Your task to perform on an android device: snooze an email in the gmail app Image 0: 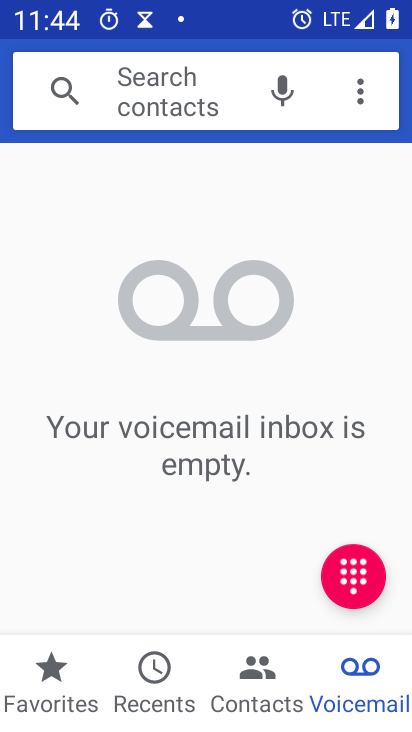
Step 0: press home button
Your task to perform on an android device: snooze an email in the gmail app Image 1: 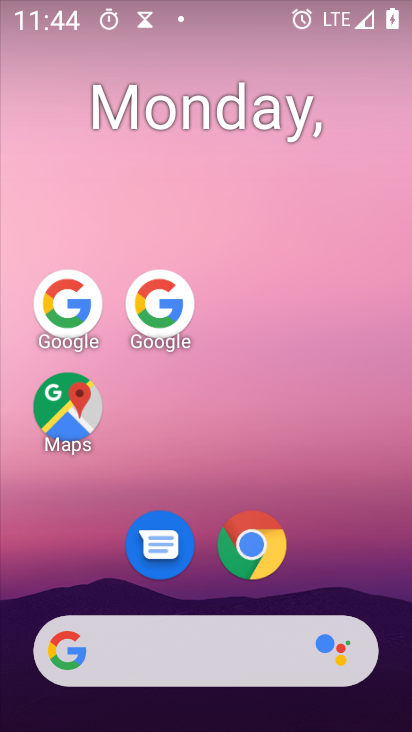
Step 1: drag from (171, 678) to (295, 131)
Your task to perform on an android device: snooze an email in the gmail app Image 2: 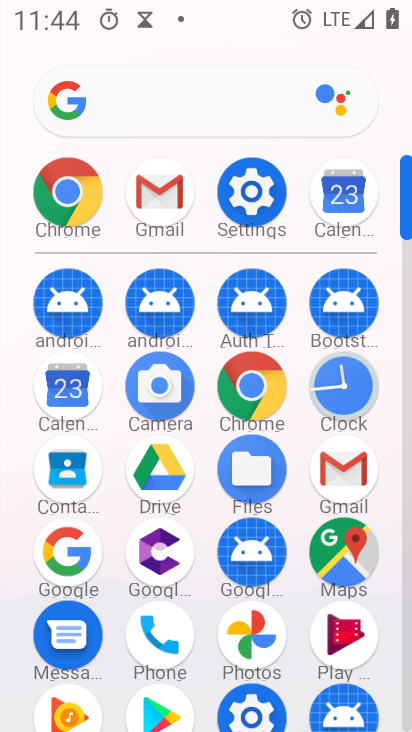
Step 2: click (157, 203)
Your task to perform on an android device: snooze an email in the gmail app Image 3: 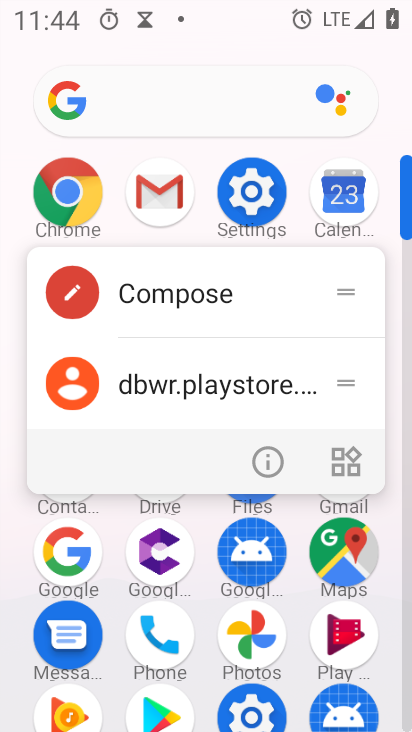
Step 3: click (154, 206)
Your task to perform on an android device: snooze an email in the gmail app Image 4: 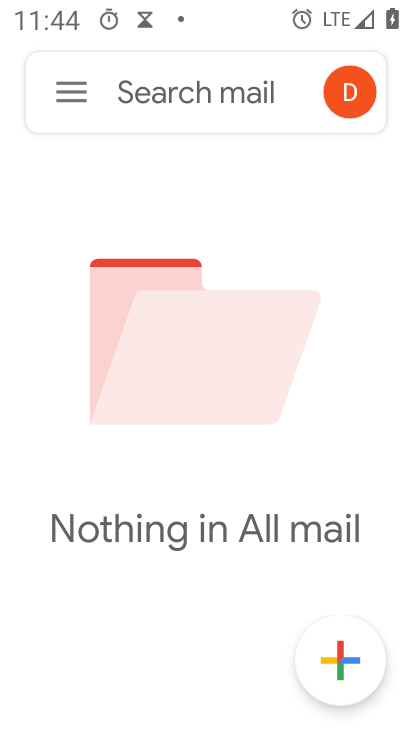
Step 4: task complete